Your task to perform on an android device: delete the emails in spam in the gmail app Image 0: 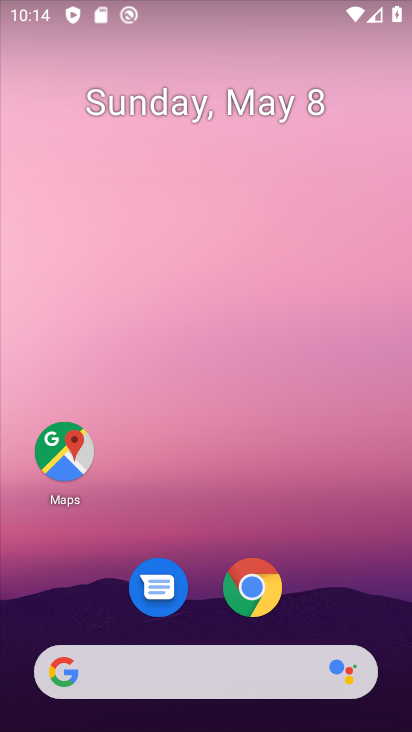
Step 0: drag from (377, 592) to (194, 120)
Your task to perform on an android device: delete the emails in spam in the gmail app Image 1: 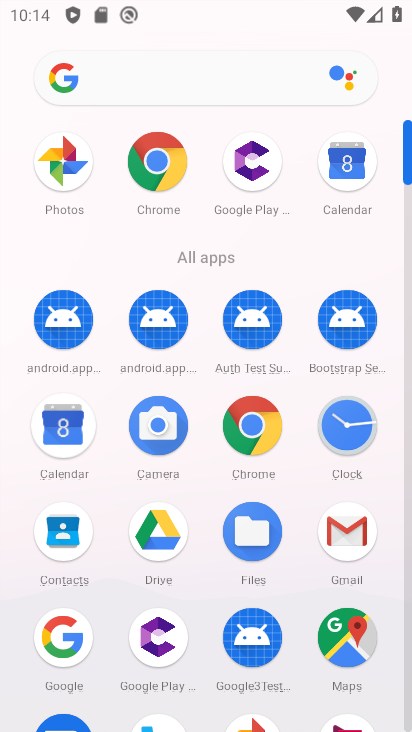
Step 1: click (346, 547)
Your task to perform on an android device: delete the emails in spam in the gmail app Image 2: 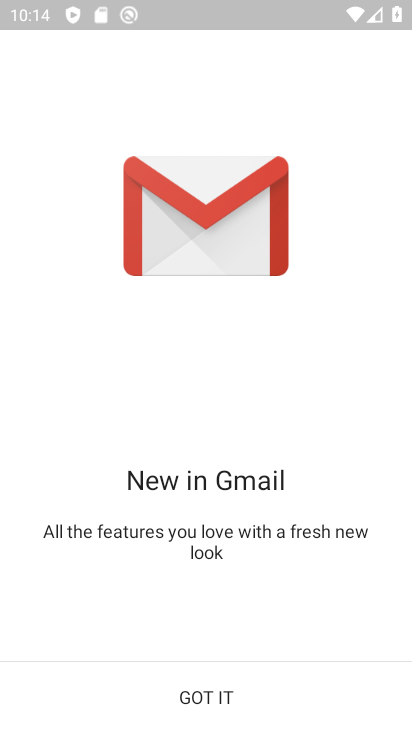
Step 2: click (207, 699)
Your task to perform on an android device: delete the emails in spam in the gmail app Image 3: 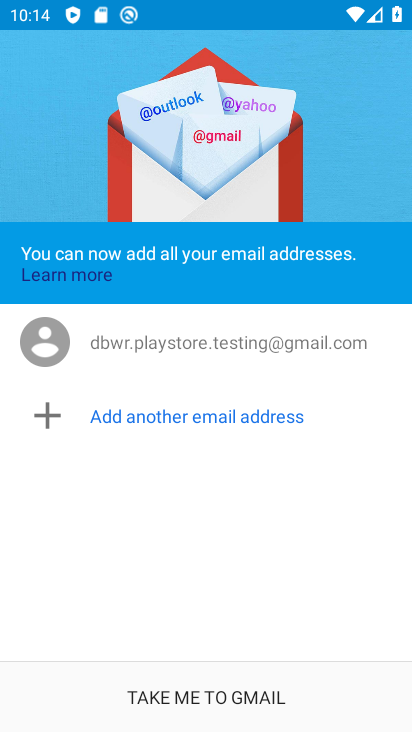
Step 3: click (201, 693)
Your task to perform on an android device: delete the emails in spam in the gmail app Image 4: 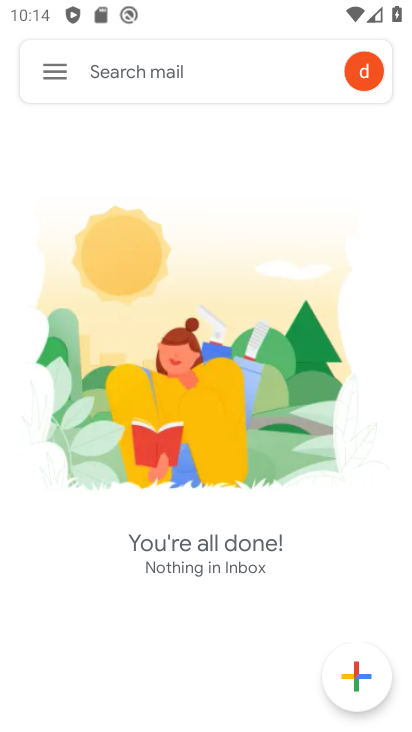
Step 4: drag from (56, 63) to (109, 291)
Your task to perform on an android device: delete the emails in spam in the gmail app Image 5: 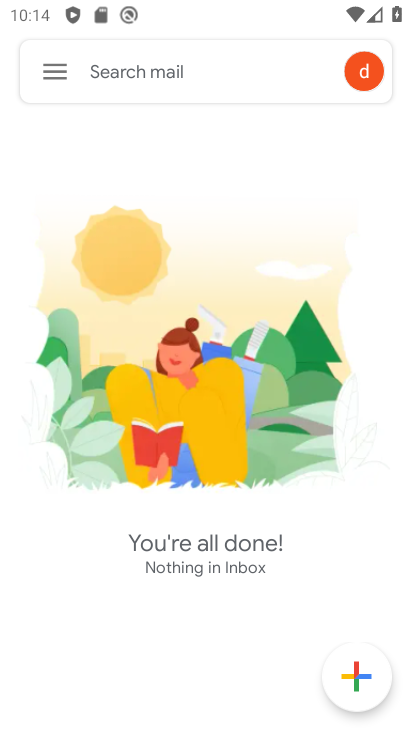
Step 5: click (56, 73)
Your task to perform on an android device: delete the emails in spam in the gmail app Image 6: 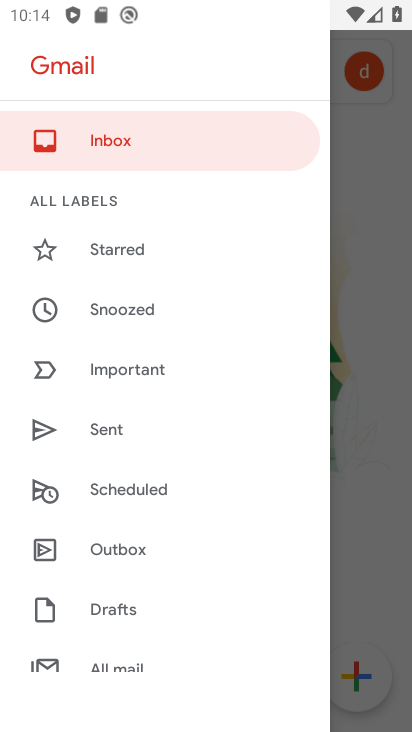
Step 6: drag from (180, 551) to (190, 260)
Your task to perform on an android device: delete the emails in spam in the gmail app Image 7: 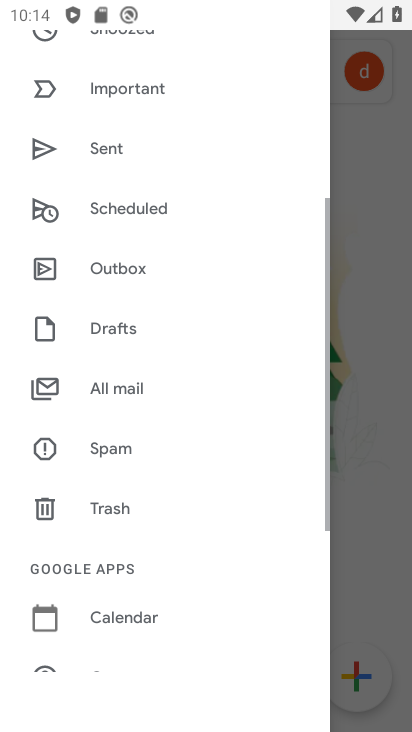
Step 7: drag from (195, 452) to (205, 207)
Your task to perform on an android device: delete the emails in spam in the gmail app Image 8: 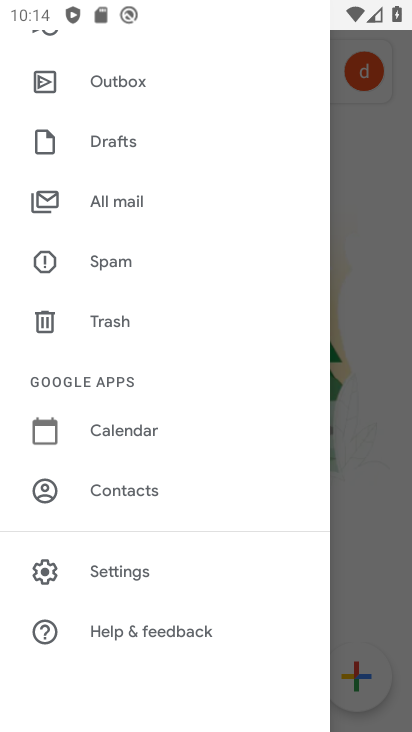
Step 8: click (91, 259)
Your task to perform on an android device: delete the emails in spam in the gmail app Image 9: 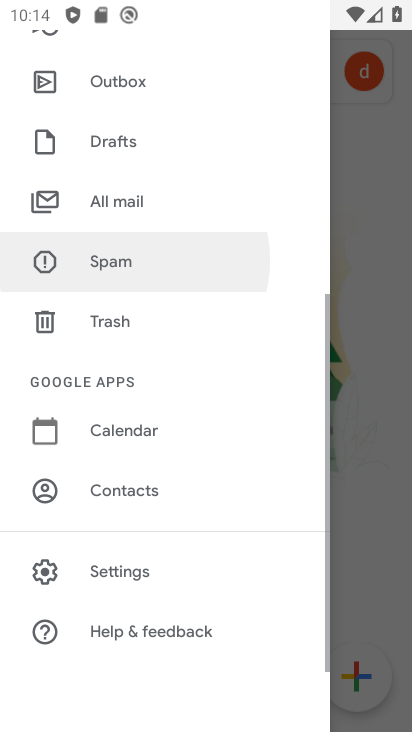
Step 9: click (102, 265)
Your task to perform on an android device: delete the emails in spam in the gmail app Image 10: 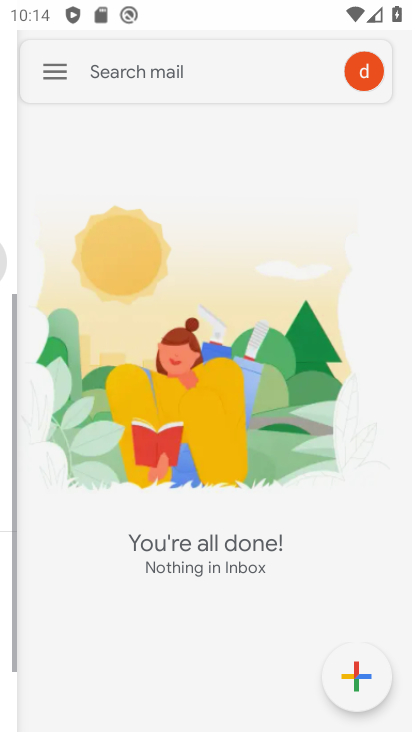
Step 10: click (103, 266)
Your task to perform on an android device: delete the emails in spam in the gmail app Image 11: 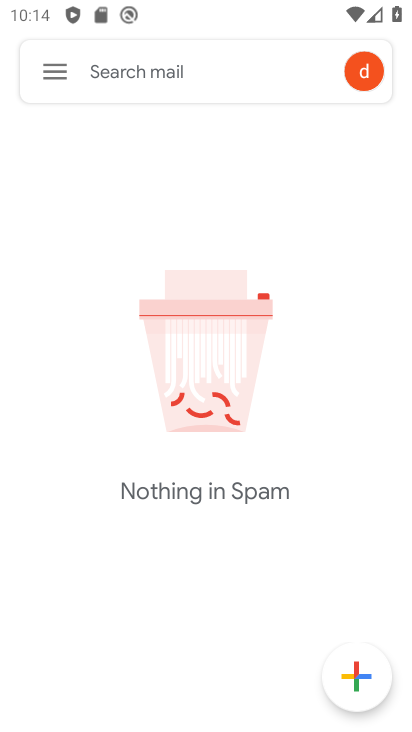
Step 11: task complete